Your task to perform on an android device: change timer sound Image 0: 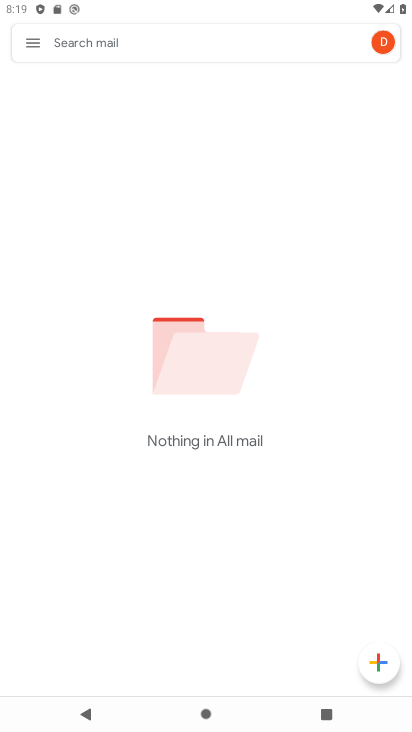
Step 0: press home button
Your task to perform on an android device: change timer sound Image 1: 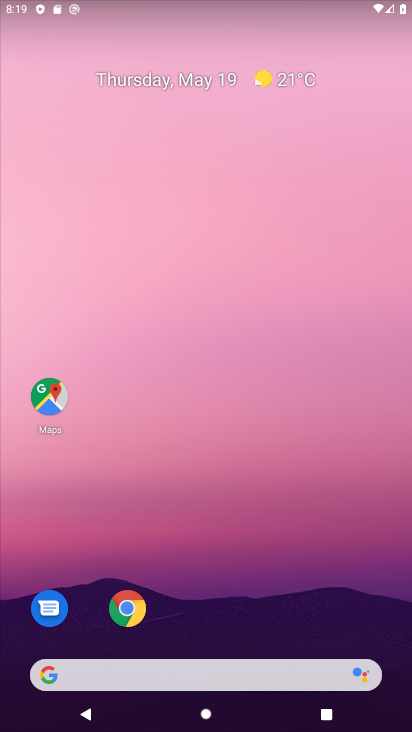
Step 1: drag from (255, 535) to (179, 0)
Your task to perform on an android device: change timer sound Image 2: 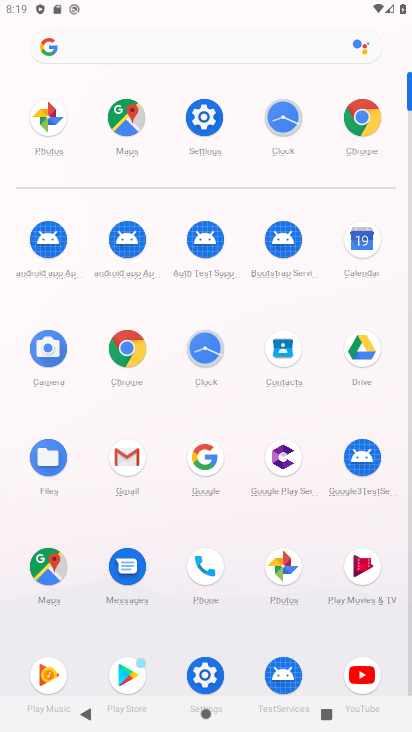
Step 2: click (278, 119)
Your task to perform on an android device: change timer sound Image 3: 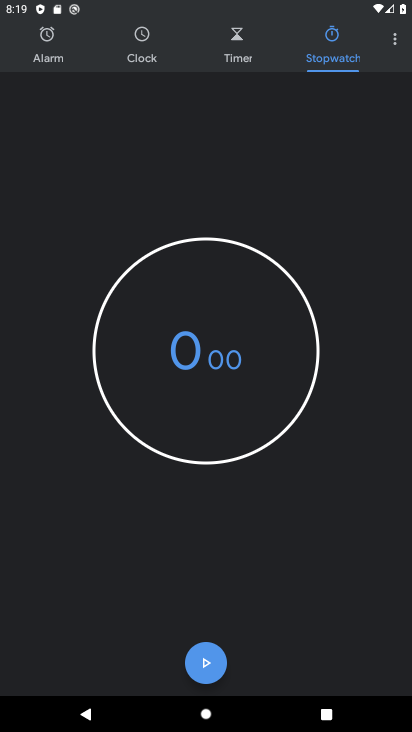
Step 3: click (241, 41)
Your task to perform on an android device: change timer sound Image 4: 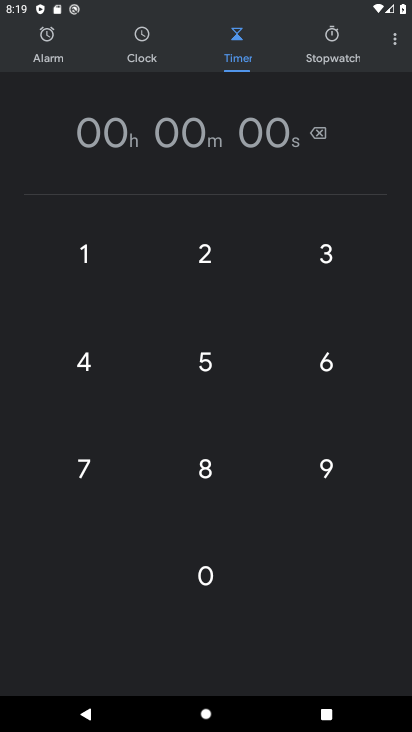
Step 4: click (89, 241)
Your task to perform on an android device: change timer sound Image 5: 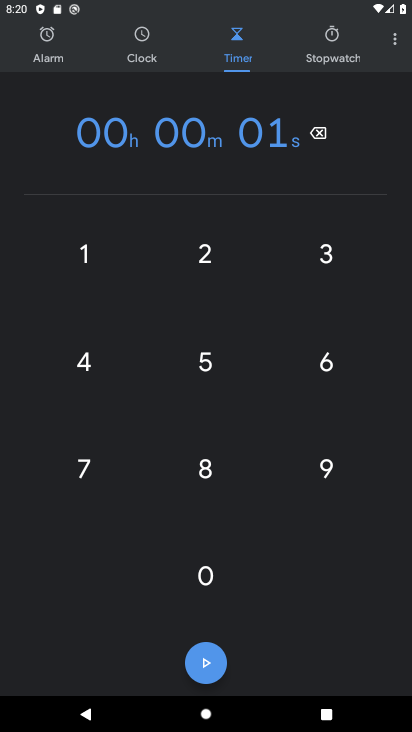
Step 5: click (93, 259)
Your task to perform on an android device: change timer sound Image 6: 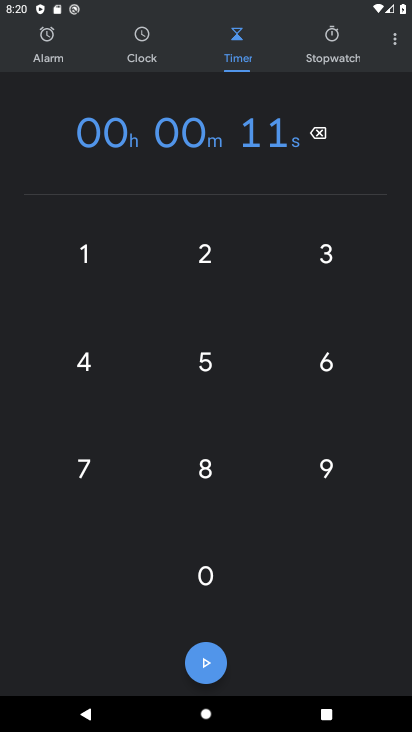
Step 6: click (93, 259)
Your task to perform on an android device: change timer sound Image 7: 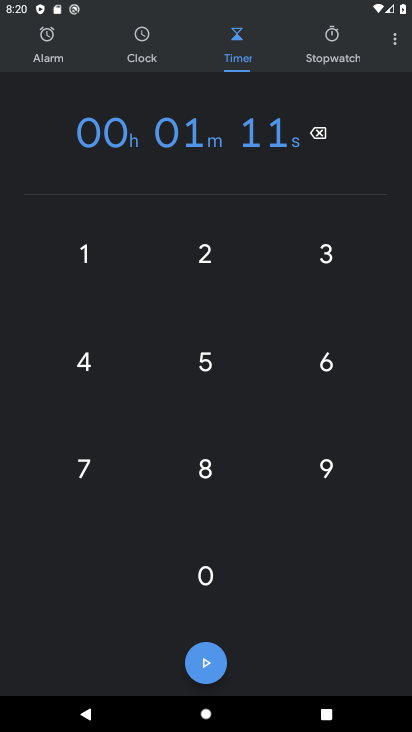
Step 7: click (93, 259)
Your task to perform on an android device: change timer sound Image 8: 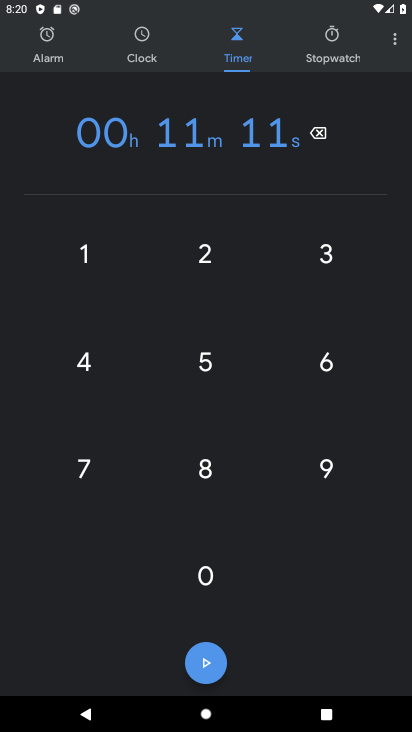
Step 8: click (93, 259)
Your task to perform on an android device: change timer sound Image 9: 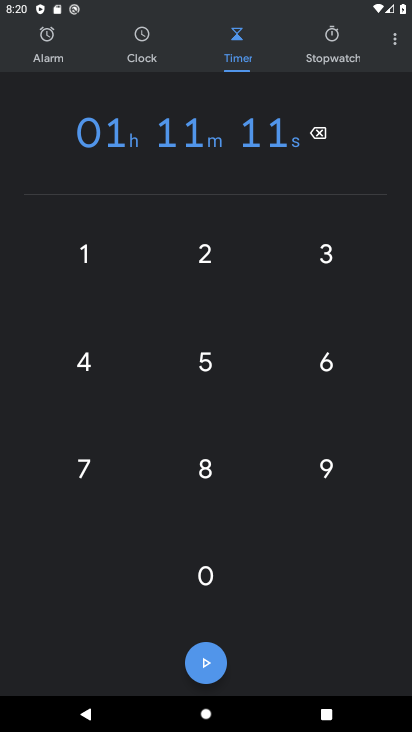
Step 9: task complete